Your task to perform on an android device: Open accessibility settings Image 0: 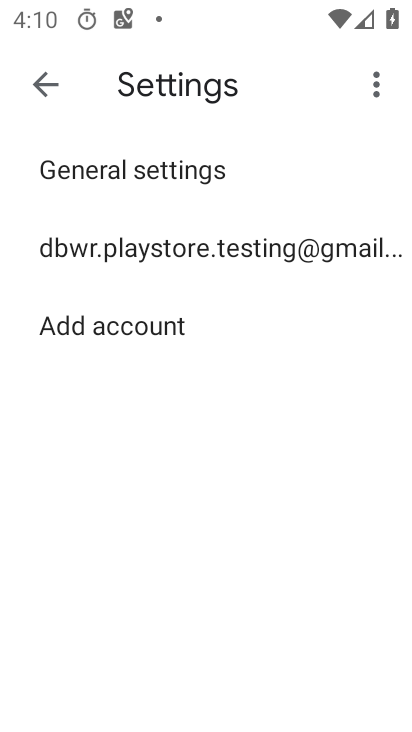
Step 0: press home button
Your task to perform on an android device: Open accessibility settings Image 1: 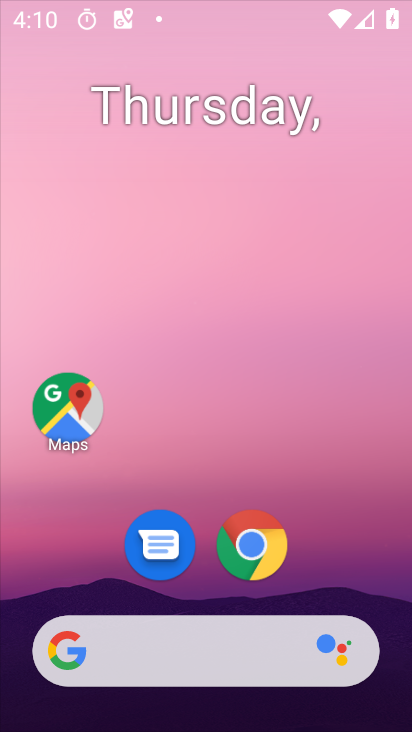
Step 1: drag from (236, 722) to (233, 126)
Your task to perform on an android device: Open accessibility settings Image 2: 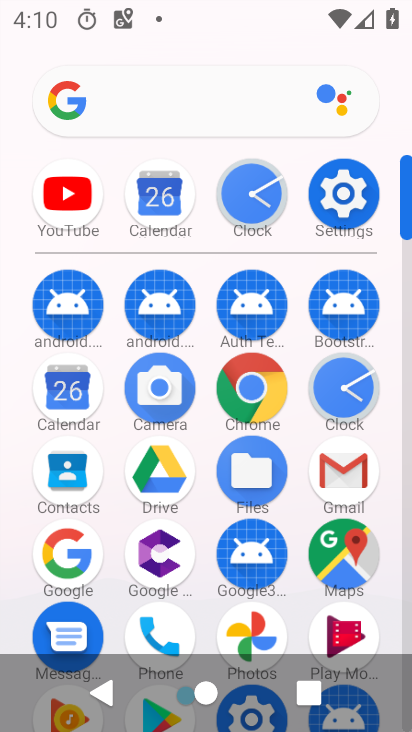
Step 2: click (333, 192)
Your task to perform on an android device: Open accessibility settings Image 3: 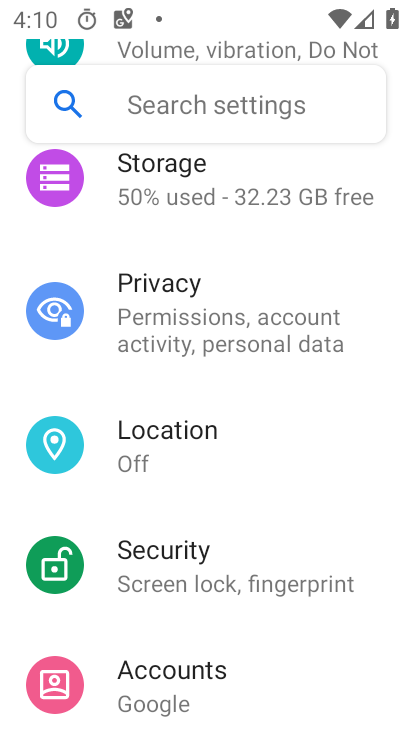
Step 3: drag from (190, 626) to (195, 199)
Your task to perform on an android device: Open accessibility settings Image 4: 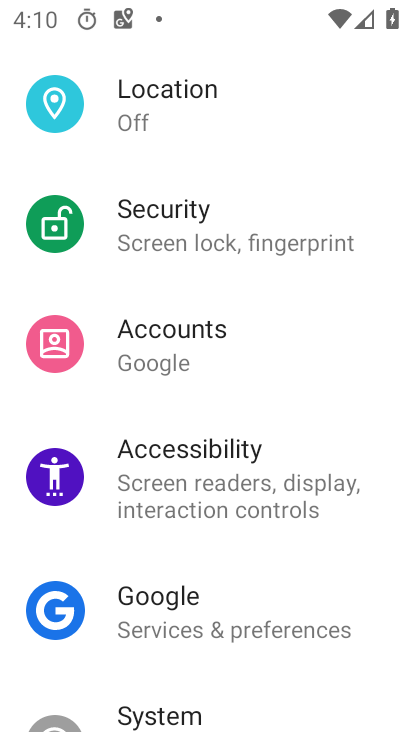
Step 4: click (179, 481)
Your task to perform on an android device: Open accessibility settings Image 5: 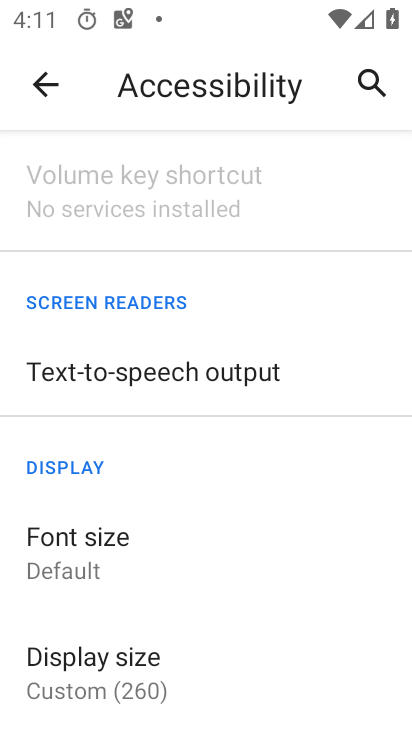
Step 5: task complete